Your task to perform on an android device: turn on airplane mode Image 0: 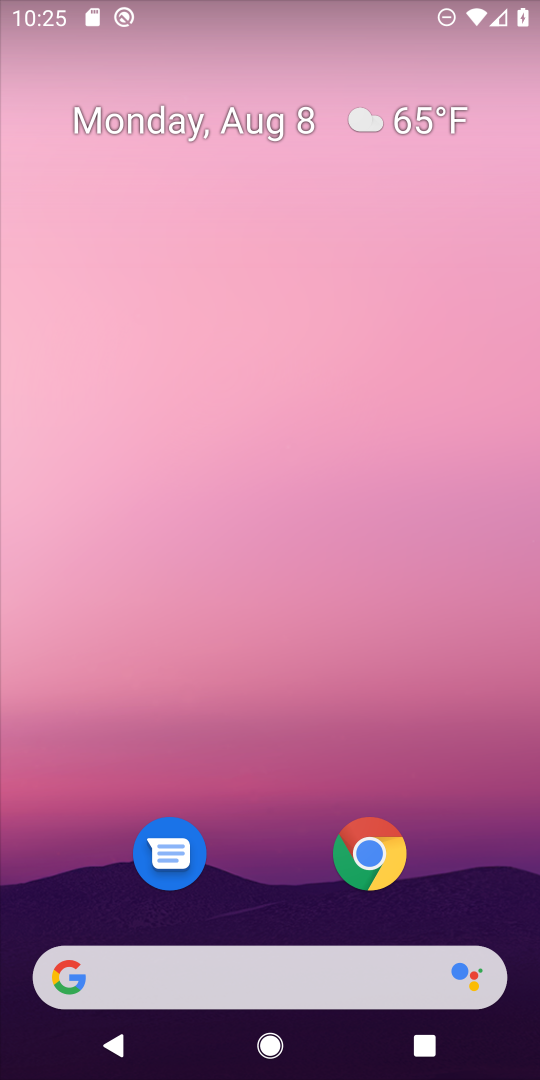
Step 0: drag from (329, 13) to (403, 792)
Your task to perform on an android device: turn on airplane mode Image 1: 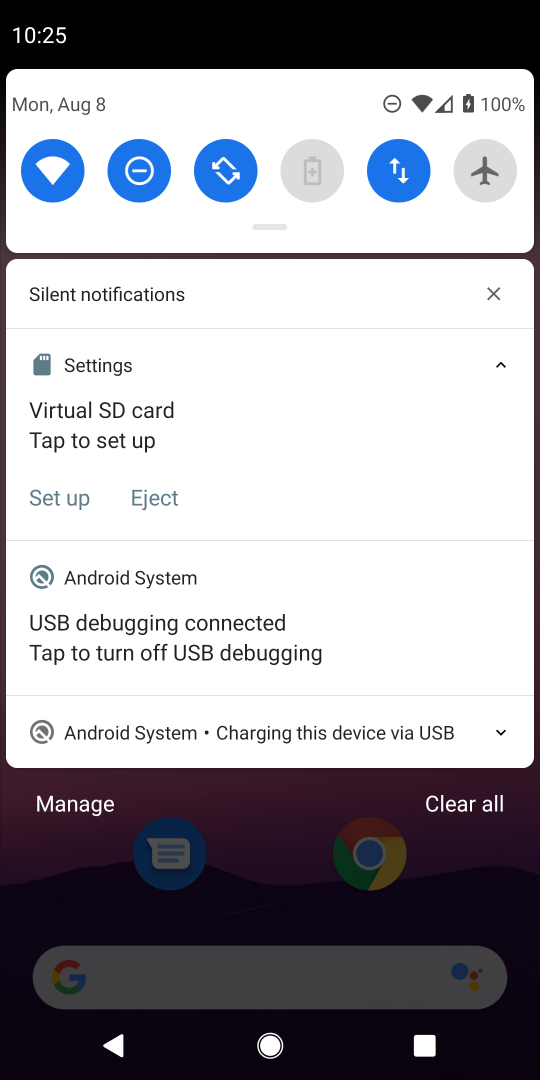
Step 1: click (479, 172)
Your task to perform on an android device: turn on airplane mode Image 2: 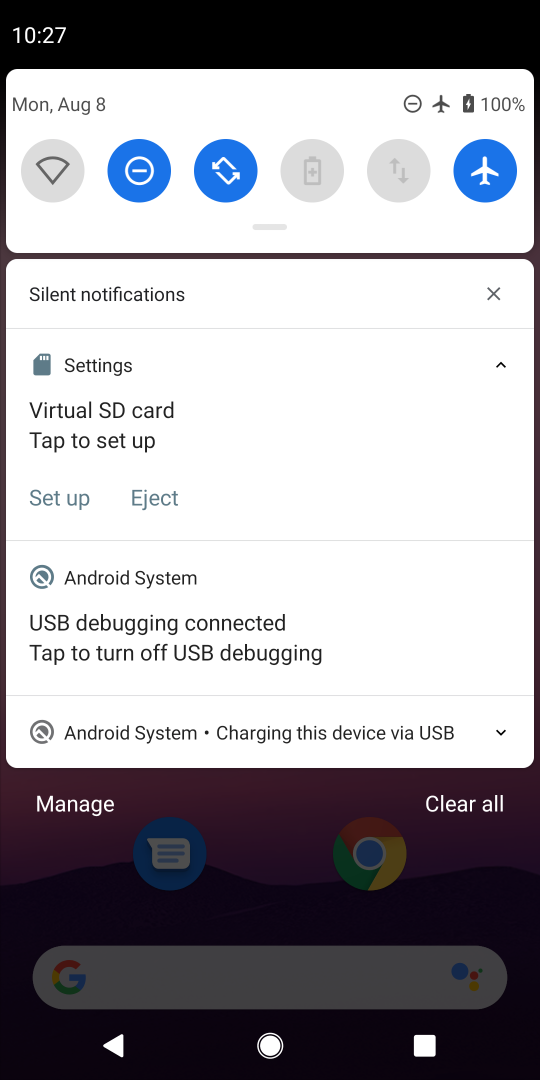
Step 2: task complete